Your task to perform on an android device: turn on airplane mode Image 0: 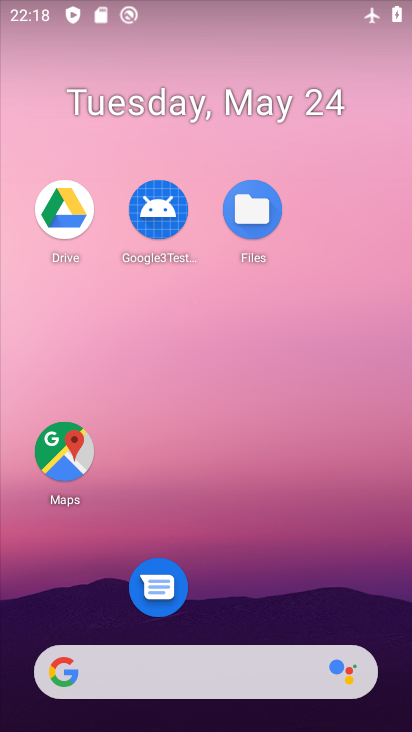
Step 0: drag from (249, 613) to (175, 107)
Your task to perform on an android device: turn on airplane mode Image 1: 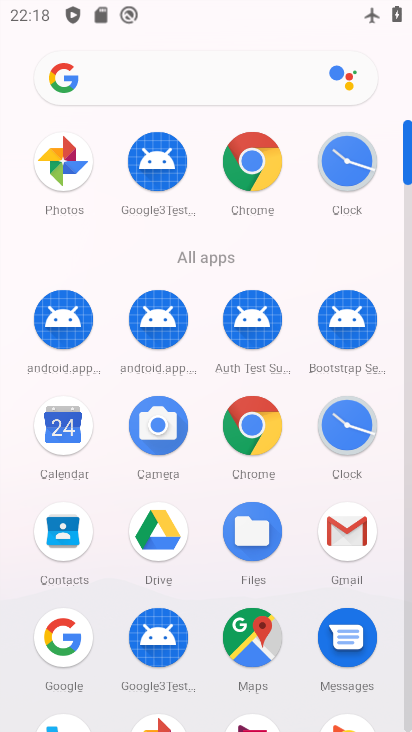
Step 1: drag from (204, 563) to (190, 65)
Your task to perform on an android device: turn on airplane mode Image 2: 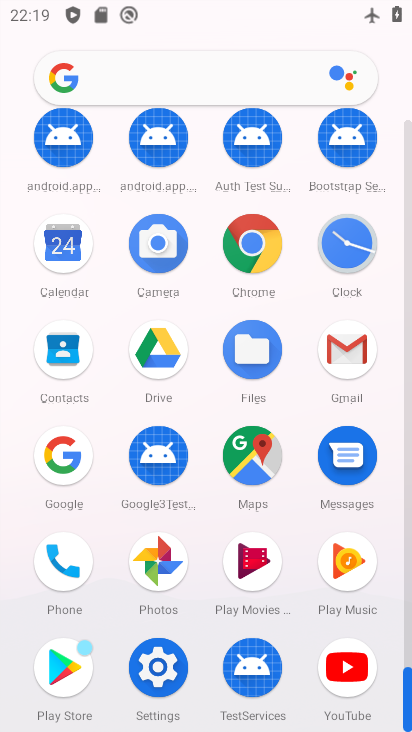
Step 2: click (200, 444)
Your task to perform on an android device: turn on airplane mode Image 3: 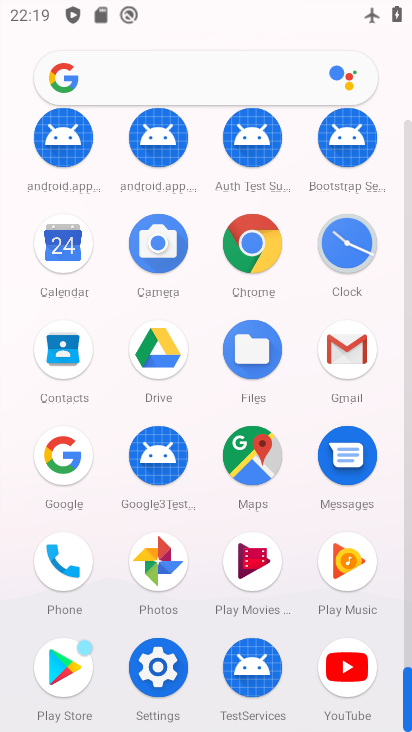
Step 3: click (154, 683)
Your task to perform on an android device: turn on airplane mode Image 4: 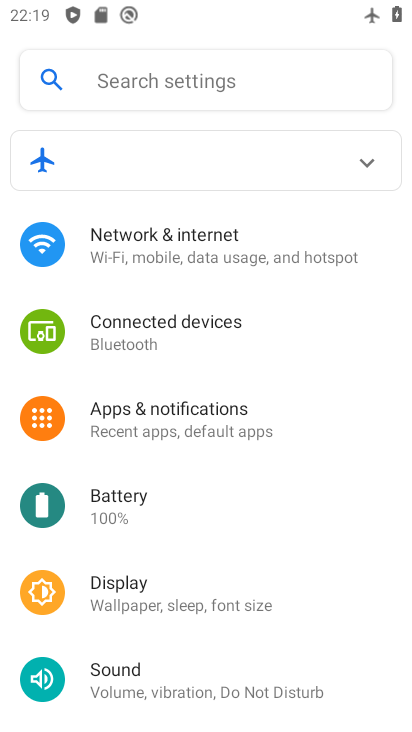
Step 4: click (192, 236)
Your task to perform on an android device: turn on airplane mode Image 5: 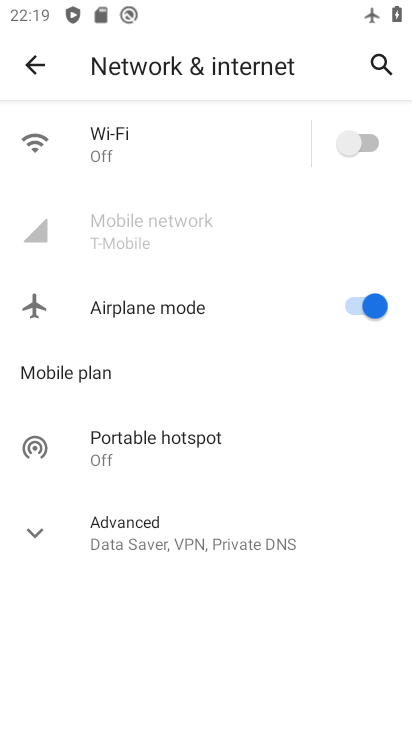
Step 5: task complete